Your task to perform on an android device: check data usage Image 0: 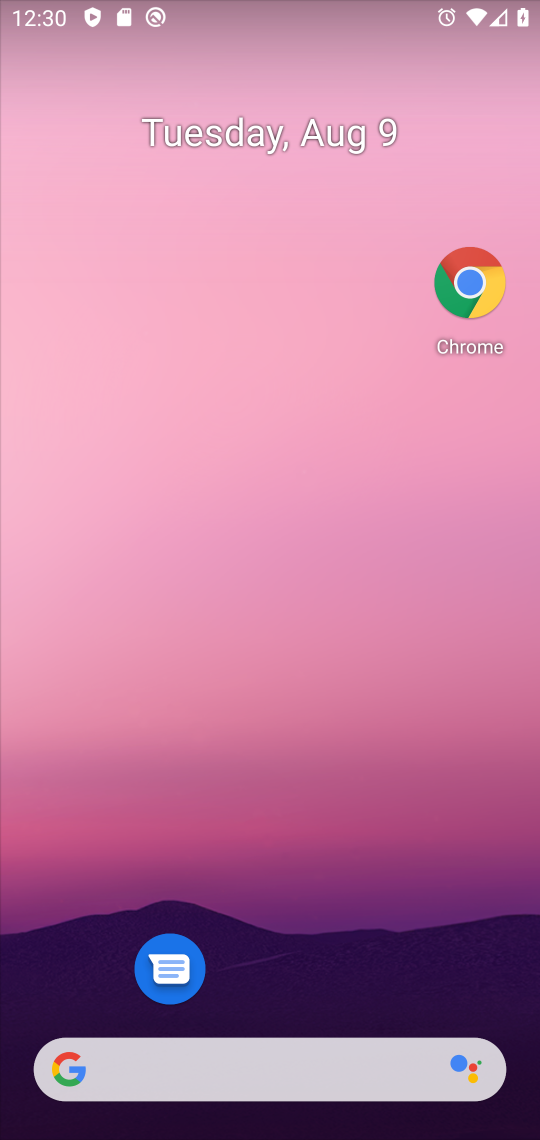
Step 0: click (368, 484)
Your task to perform on an android device: check data usage Image 1: 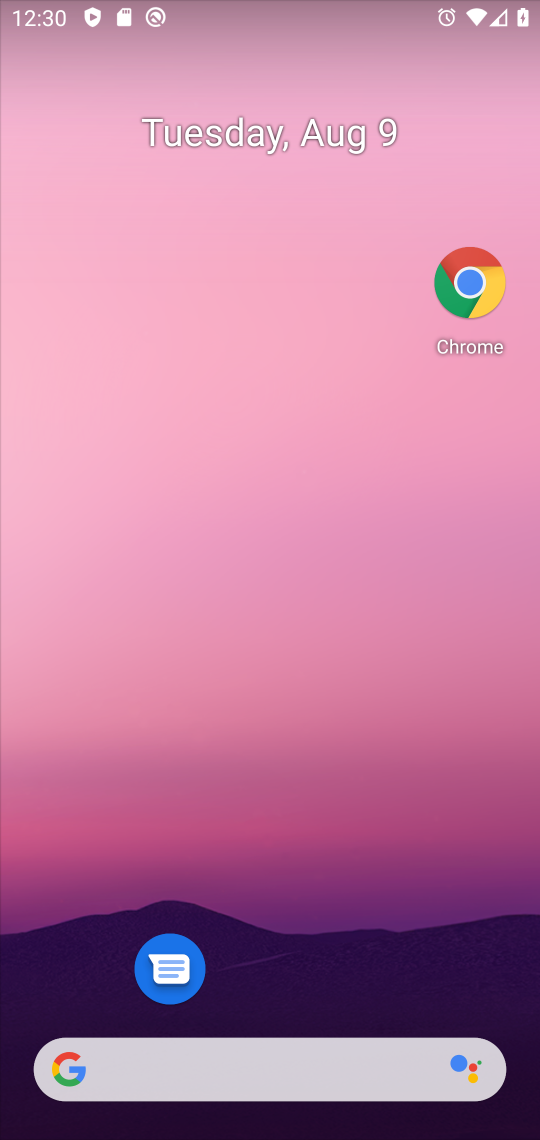
Step 1: drag from (310, 984) to (391, 225)
Your task to perform on an android device: check data usage Image 2: 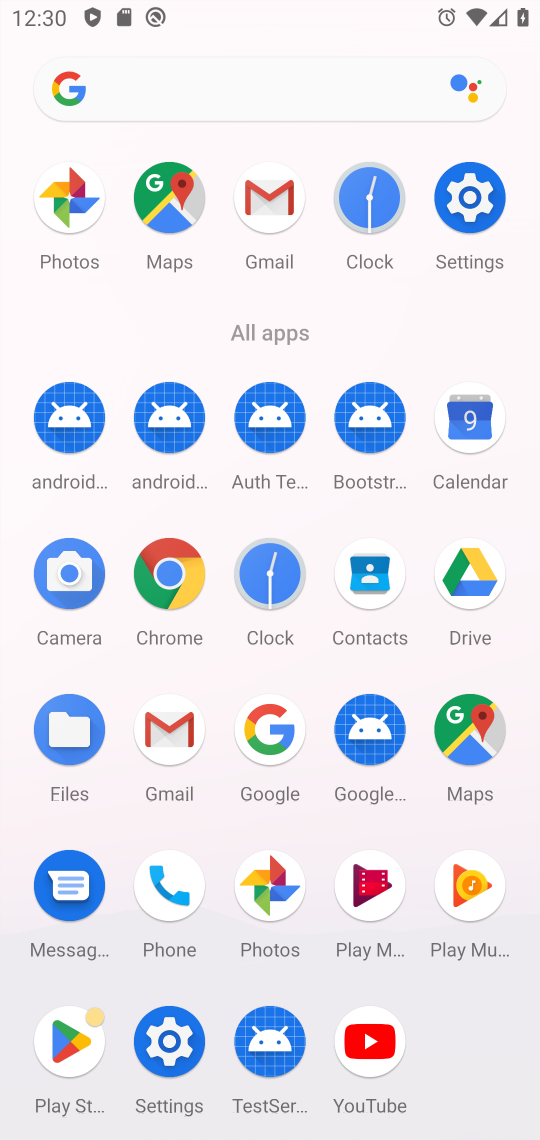
Step 2: click (472, 182)
Your task to perform on an android device: check data usage Image 3: 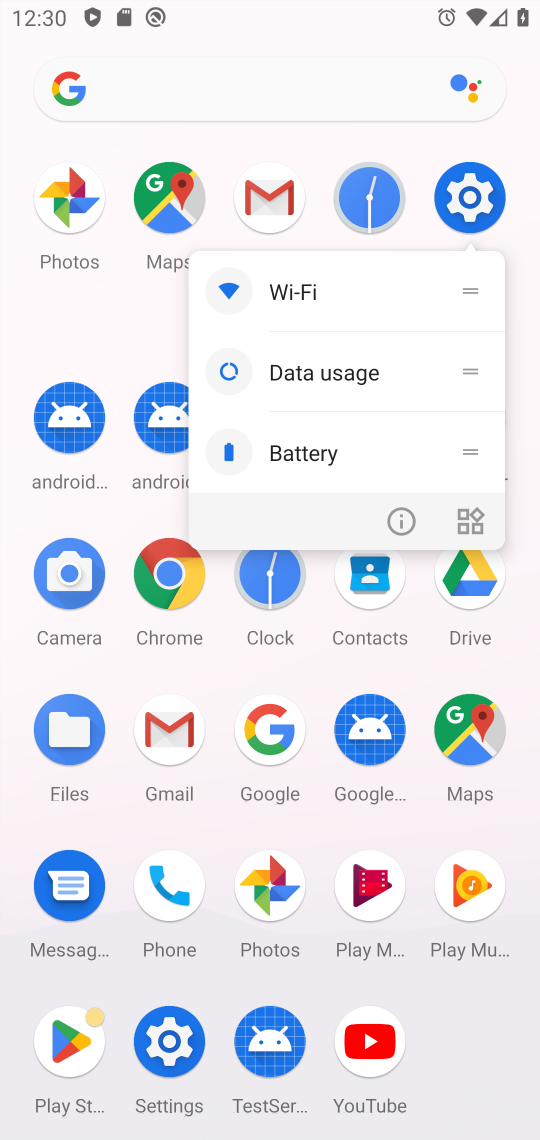
Step 3: click (396, 526)
Your task to perform on an android device: check data usage Image 4: 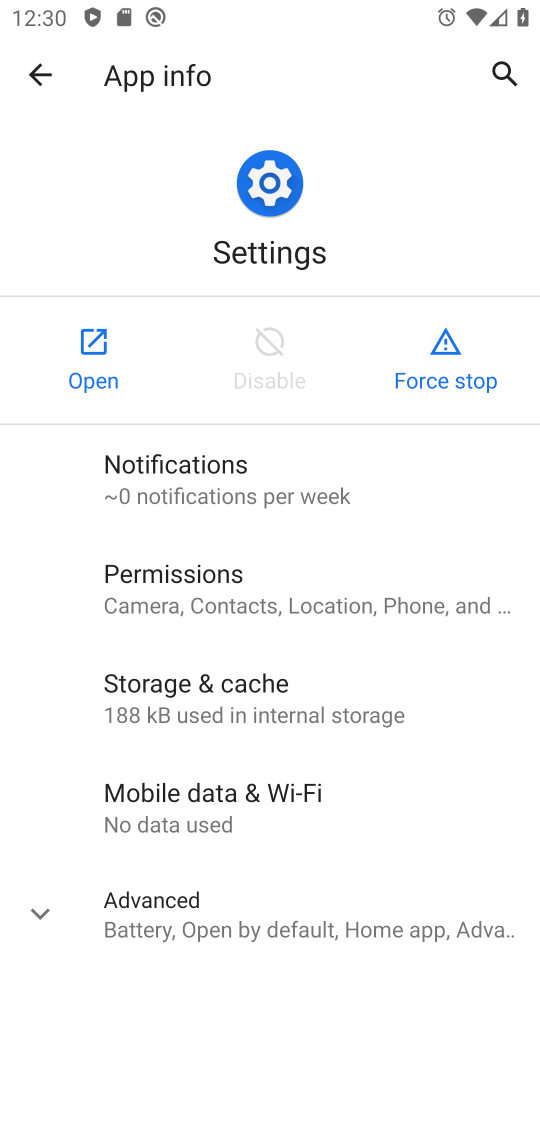
Step 4: click (105, 337)
Your task to perform on an android device: check data usage Image 5: 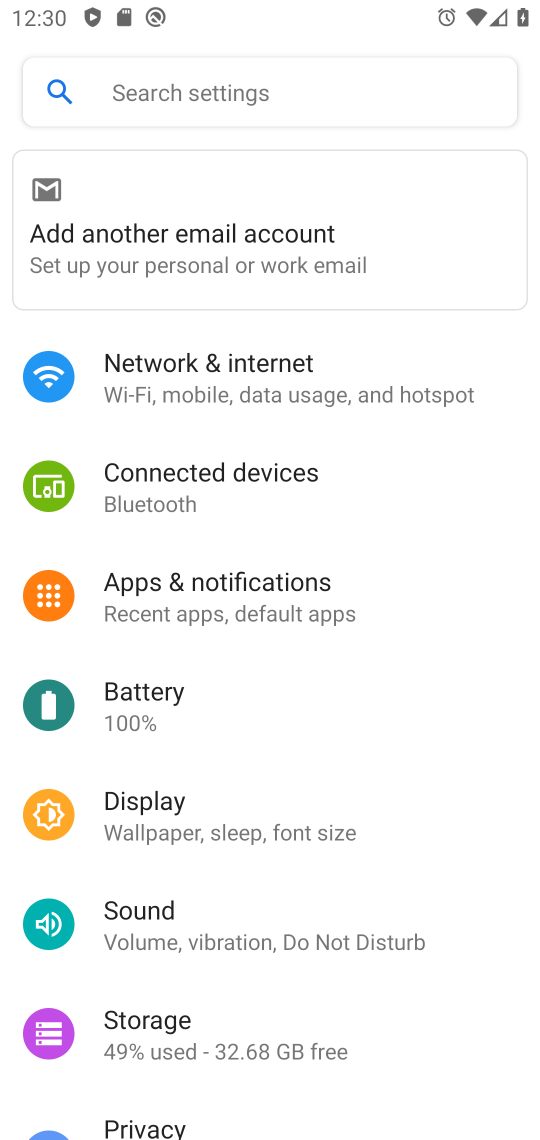
Step 5: click (226, 399)
Your task to perform on an android device: check data usage Image 6: 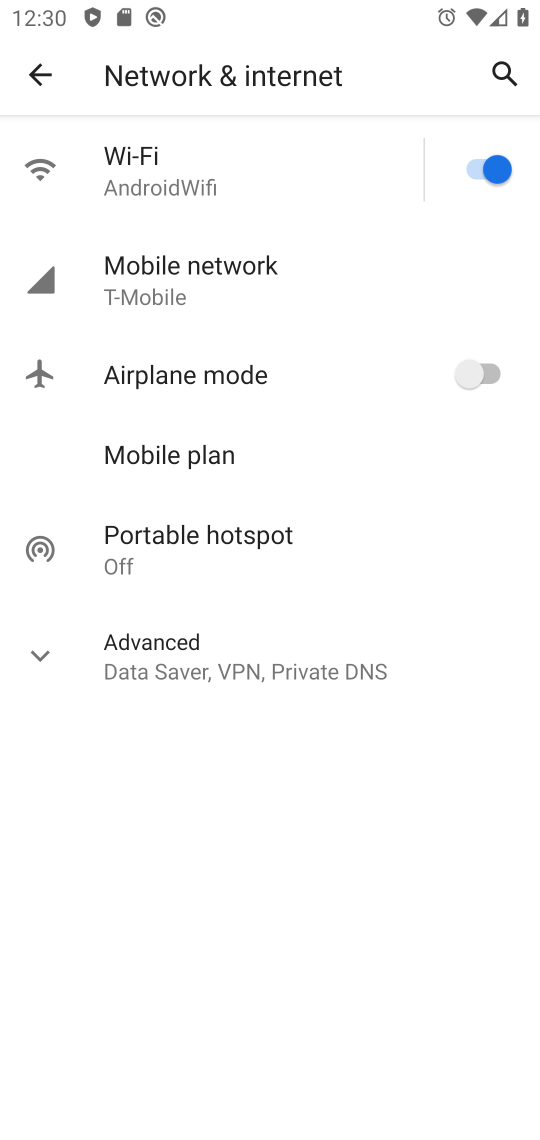
Step 6: click (207, 284)
Your task to perform on an android device: check data usage Image 7: 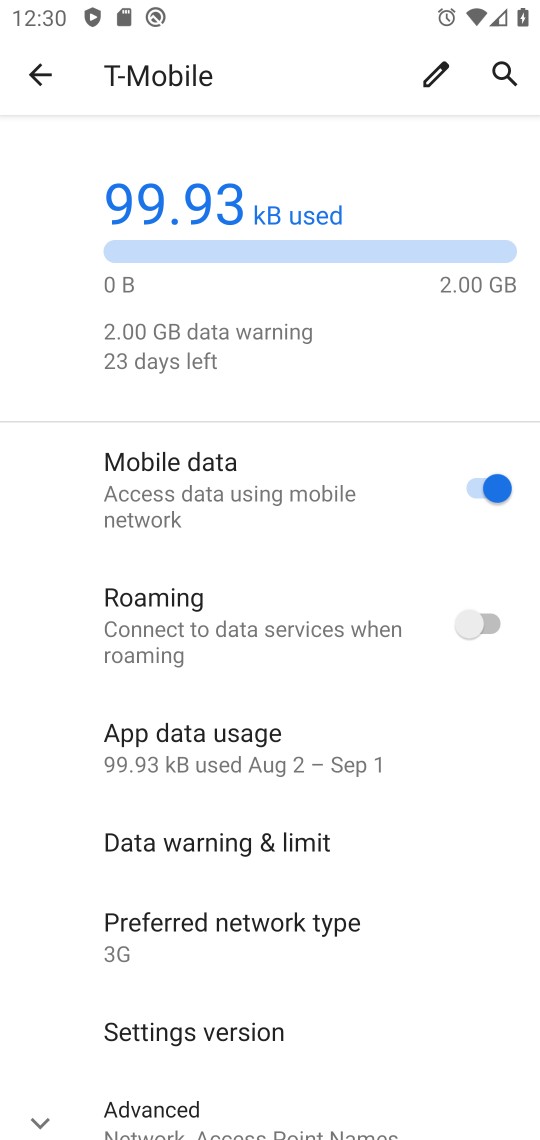
Step 7: task complete